Your task to perform on an android device: manage bookmarks in the chrome app Image 0: 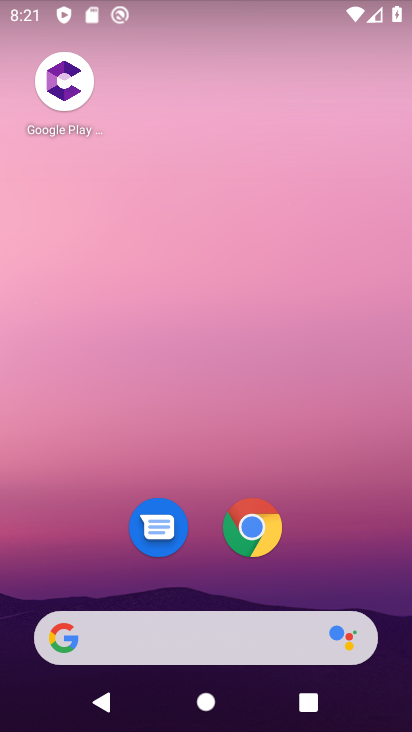
Step 0: click (252, 533)
Your task to perform on an android device: manage bookmarks in the chrome app Image 1: 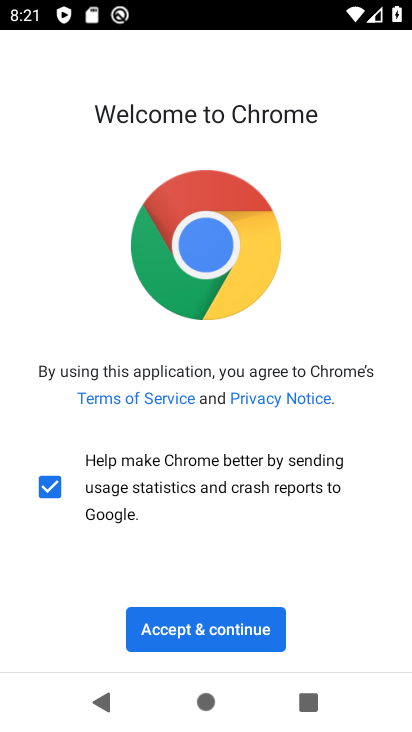
Step 1: click (192, 624)
Your task to perform on an android device: manage bookmarks in the chrome app Image 2: 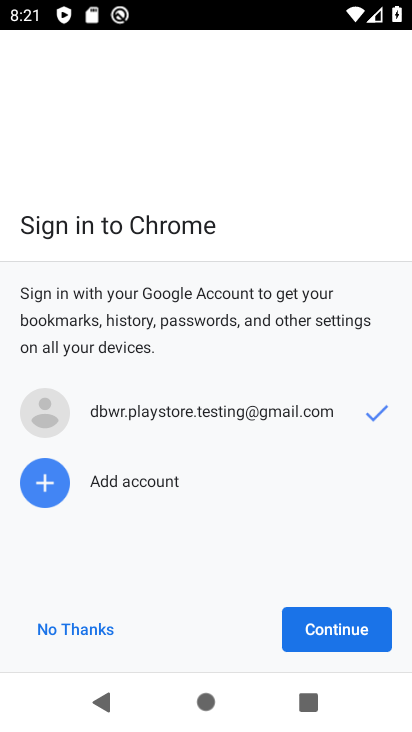
Step 2: click (390, 635)
Your task to perform on an android device: manage bookmarks in the chrome app Image 3: 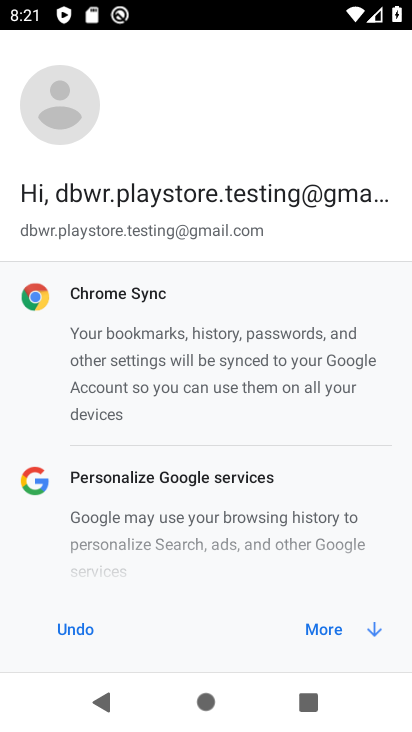
Step 3: click (318, 625)
Your task to perform on an android device: manage bookmarks in the chrome app Image 4: 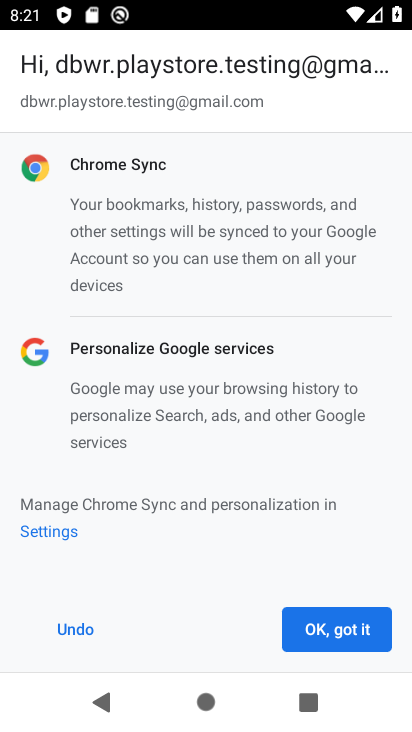
Step 4: click (318, 625)
Your task to perform on an android device: manage bookmarks in the chrome app Image 5: 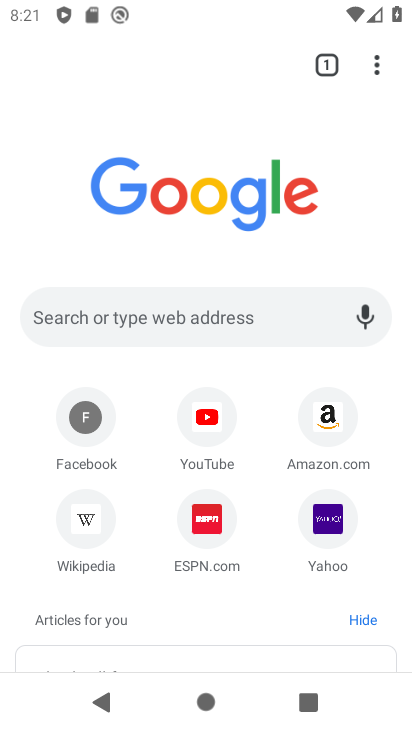
Step 5: click (365, 55)
Your task to perform on an android device: manage bookmarks in the chrome app Image 6: 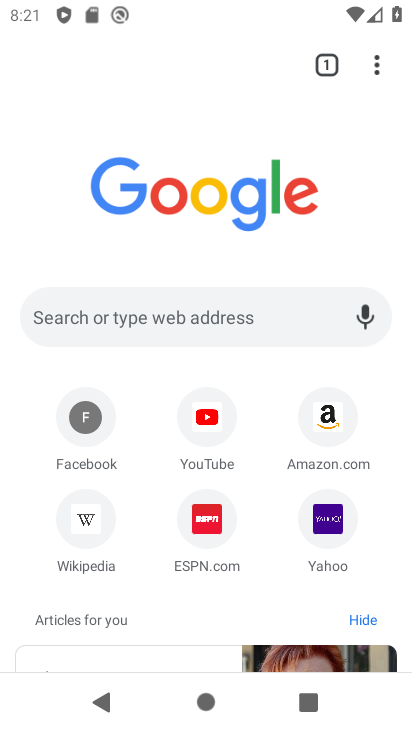
Step 6: click (372, 71)
Your task to perform on an android device: manage bookmarks in the chrome app Image 7: 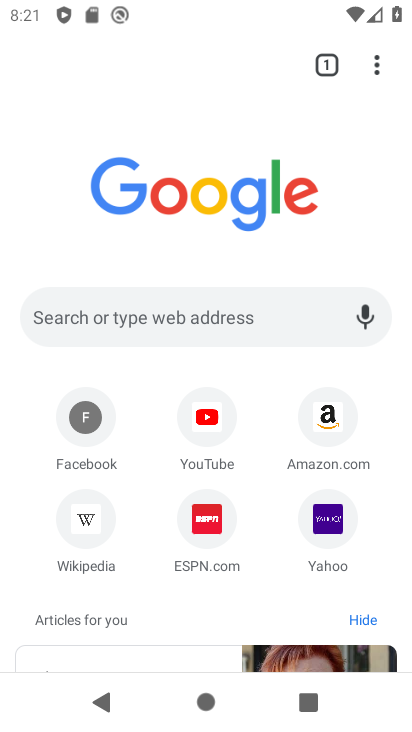
Step 7: click (380, 68)
Your task to perform on an android device: manage bookmarks in the chrome app Image 8: 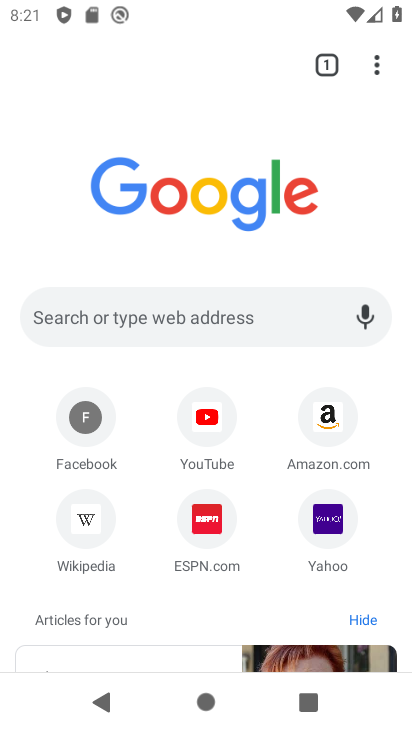
Step 8: click (377, 68)
Your task to perform on an android device: manage bookmarks in the chrome app Image 9: 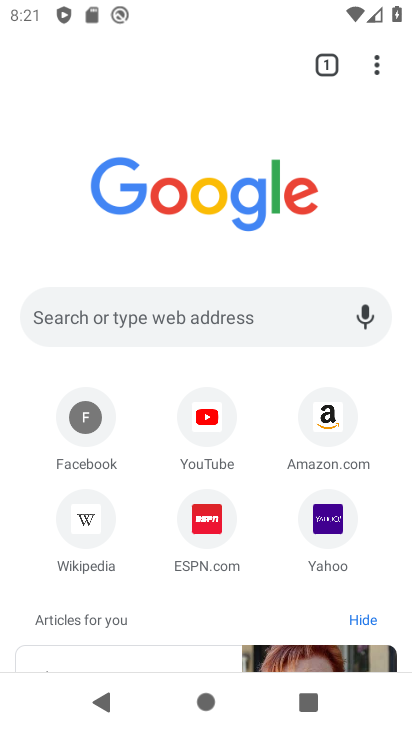
Step 9: click (376, 67)
Your task to perform on an android device: manage bookmarks in the chrome app Image 10: 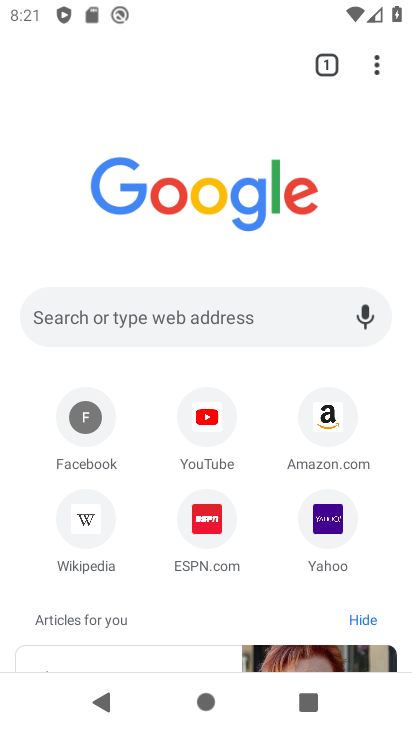
Step 10: click (378, 71)
Your task to perform on an android device: manage bookmarks in the chrome app Image 11: 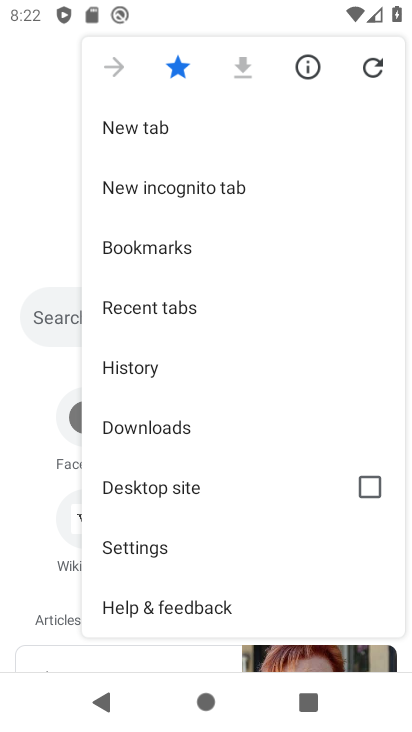
Step 11: click (160, 252)
Your task to perform on an android device: manage bookmarks in the chrome app Image 12: 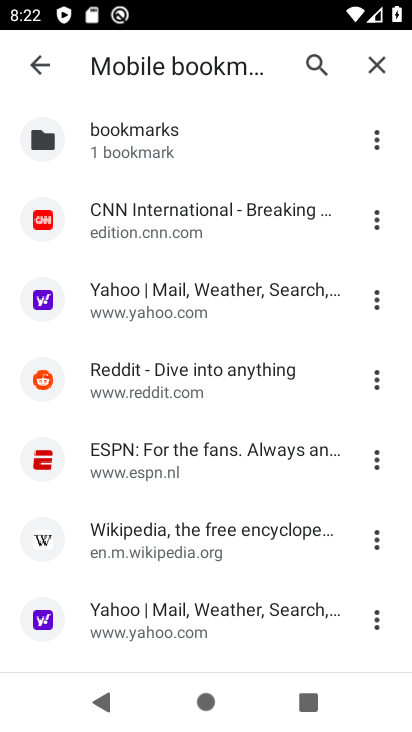
Step 12: click (378, 227)
Your task to perform on an android device: manage bookmarks in the chrome app Image 13: 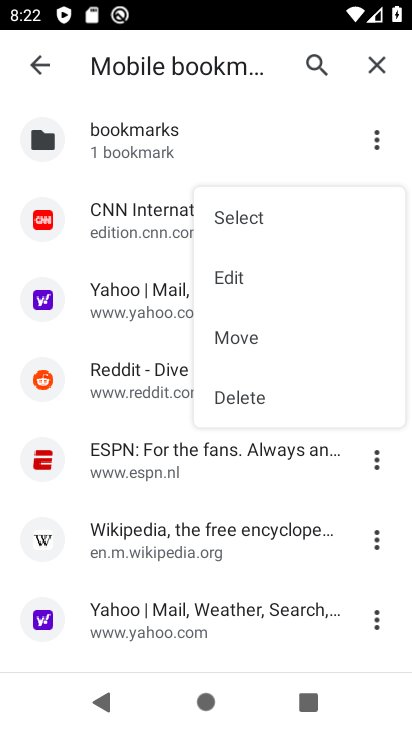
Step 13: click (227, 408)
Your task to perform on an android device: manage bookmarks in the chrome app Image 14: 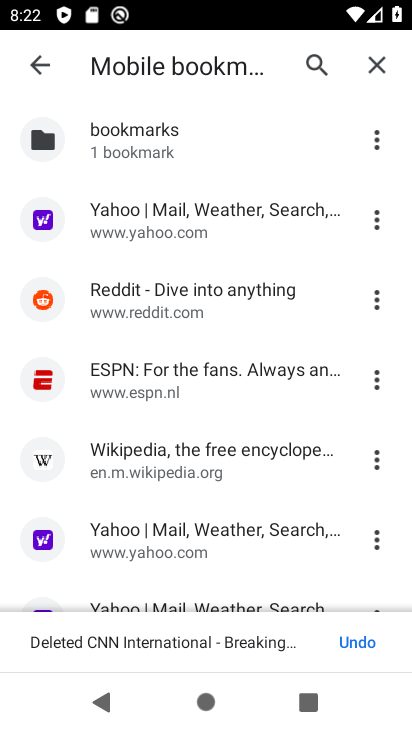
Step 14: task complete